Your task to perform on an android device: show emergency info Image 0: 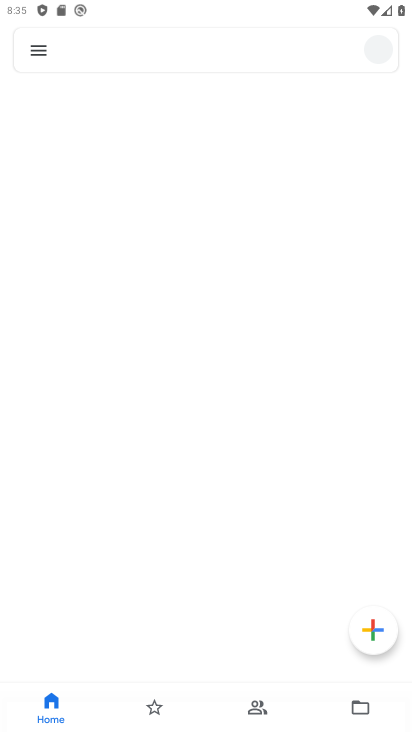
Step 0: click (120, 642)
Your task to perform on an android device: show emergency info Image 1: 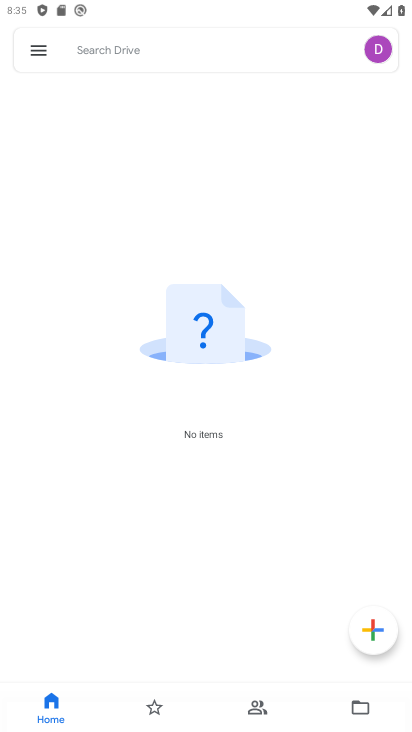
Step 1: press home button
Your task to perform on an android device: show emergency info Image 2: 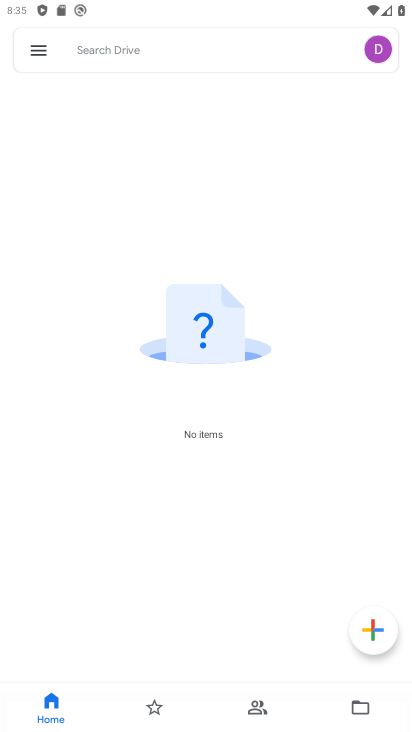
Step 2: press home button
Your task to perform on an android device: show emergency info Image 3: 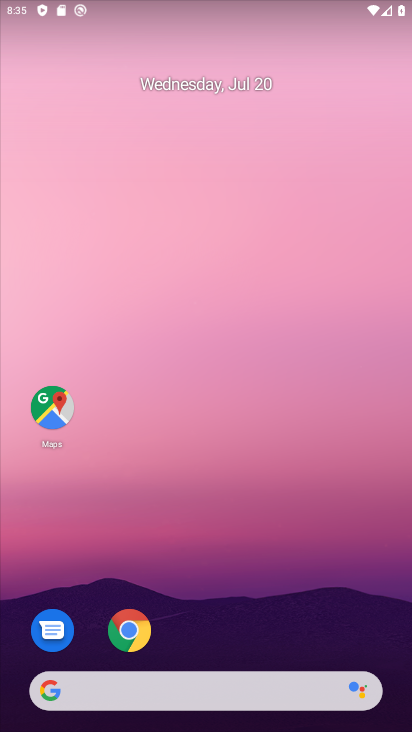
Step 3: drag from (303, 626) to (226, 155)
Your task to perform on an android device: show emergency info Image 4: 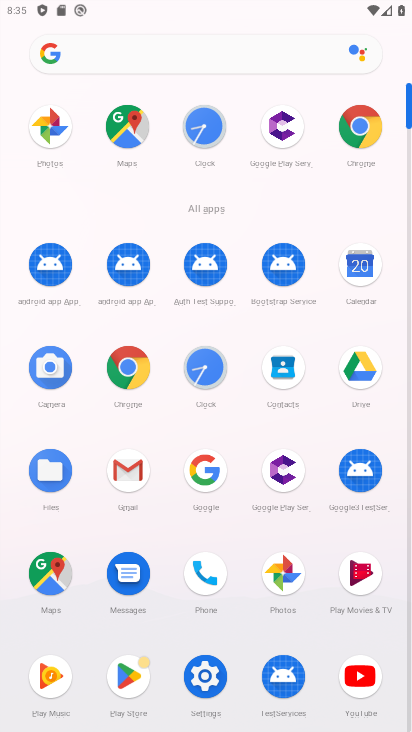
Step 4: click (204, 676)
Your task to perform on an android device: show emergency info Image 5: 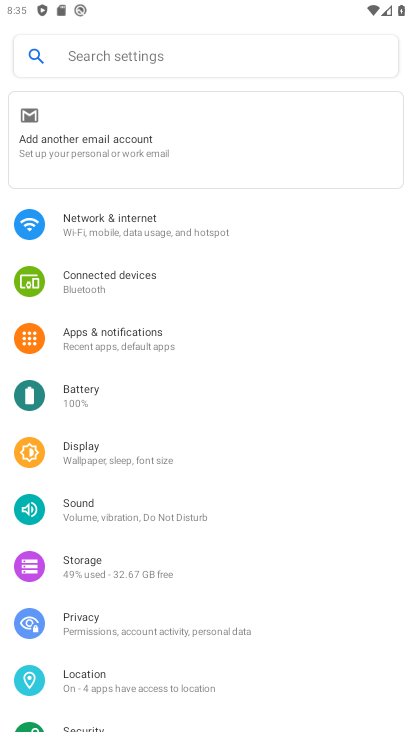
Step 5: drag from (199, 600) to (200, 349)
Your task to perform on an android device: show emergency info Image 6: 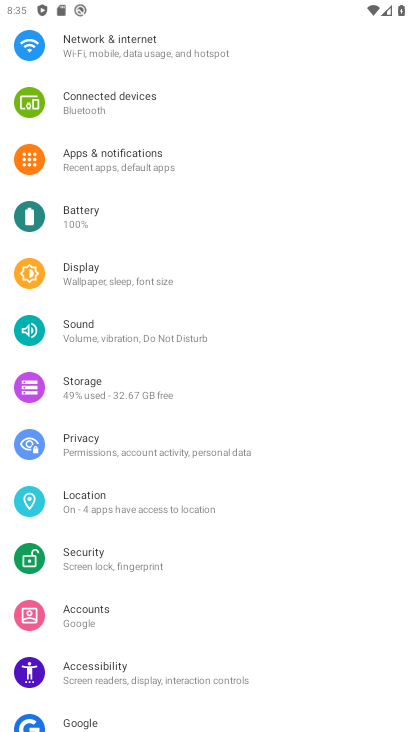
Step 6: drag from (131, 637) to (131, 246)
Your task to perform on an android device: show emergency info Image 7: 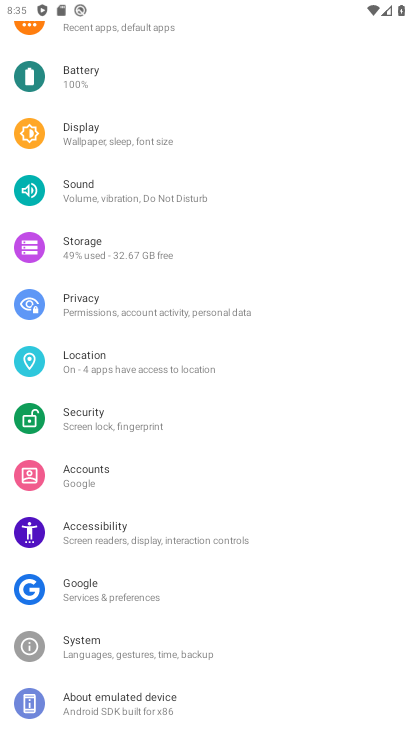
Step 7: click (131, 706)
Your task to perform on an android device: show emergency info Image 8: 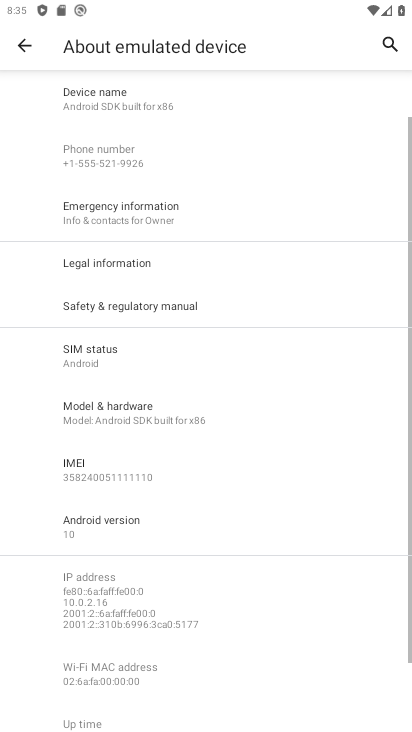
Step 8: click (184, 230)
Your task to perform on an android device: show emergency info Image 9: 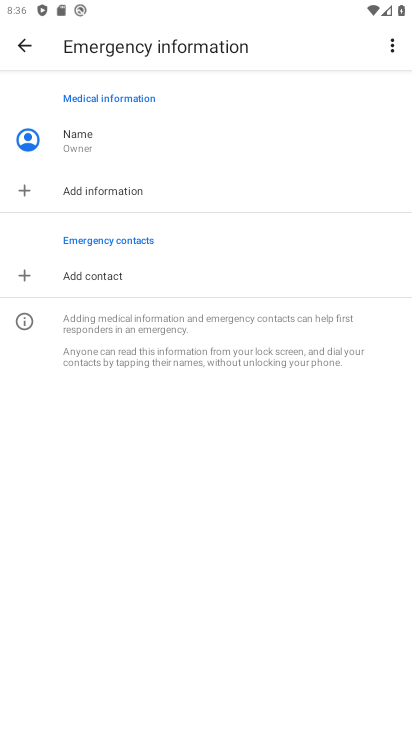
Step 9: task complete